Your task to perform on an android device: see creations saved in the google photos Image 0: 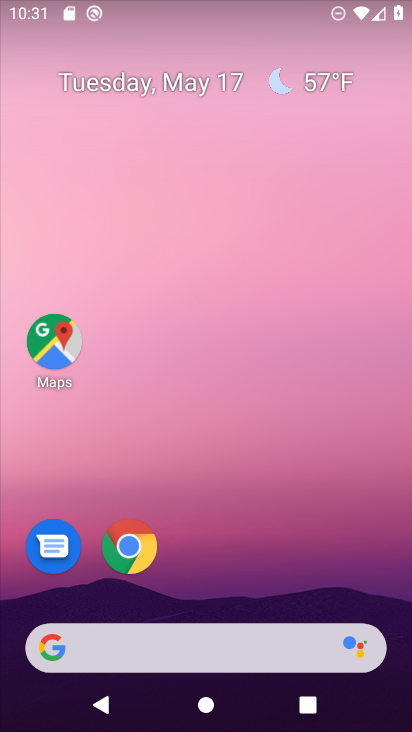
Step 0: drag from (320, 605) to (343, 7)
Your task to perform on an android device: see creations saved in the google photos Image 1: 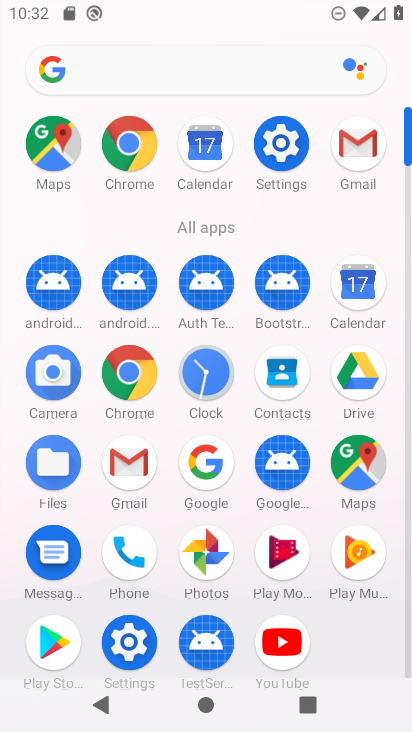
Step 1: click (207, 554)
Your task to perform on an android device: see creations saved in the google photos Image 2: 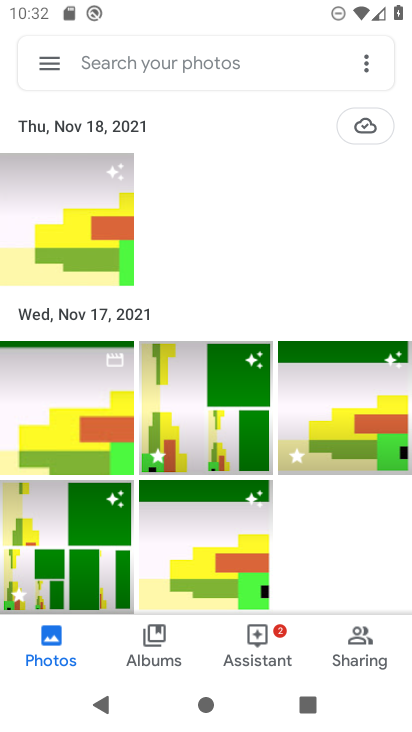
Step 2: click (140, 63)
Your task to perform on an android device: see creations saved in the google photos Image 3: 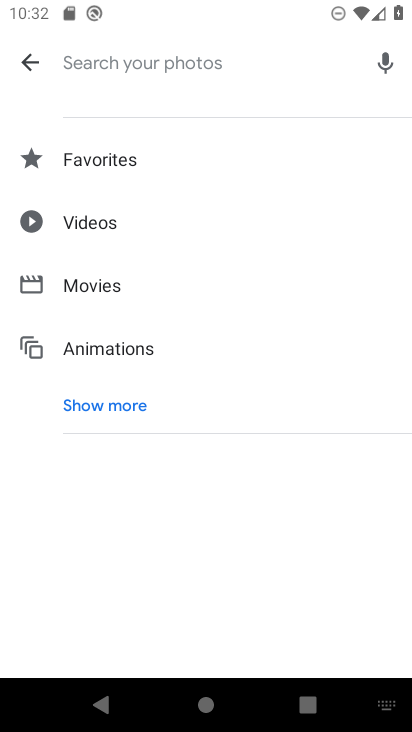
Step 3: click (72, 398)
Your task to perform on an android device: see creations saved in the google photos Image 4: 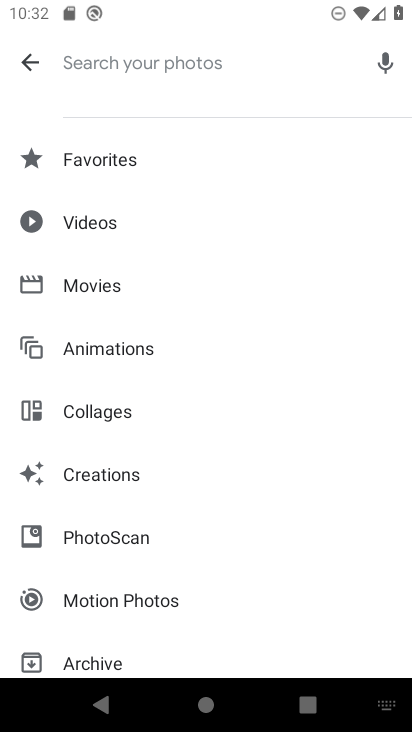
Step 4: click (88, 481)
Your task to perform on an android device: see creations saved in the google photos Image 5: 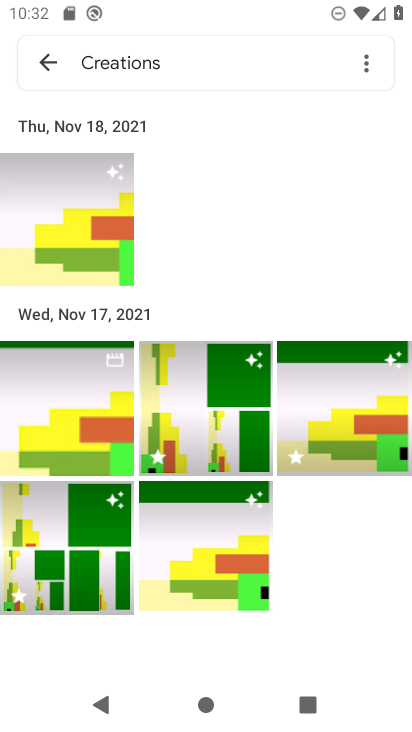
Step 5: task complete